Your task to perform on an android device: toggle javascript in the chrome app Image 0: 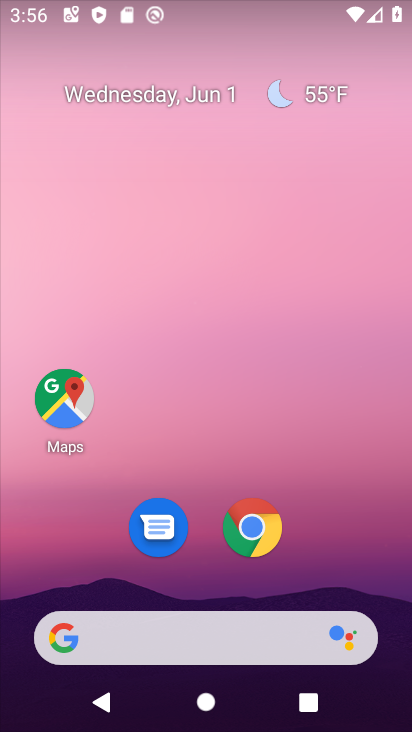
Step 0: click (266, 522)
Your task to perform on an android device: toggle javascript in the chrome app Image 1: 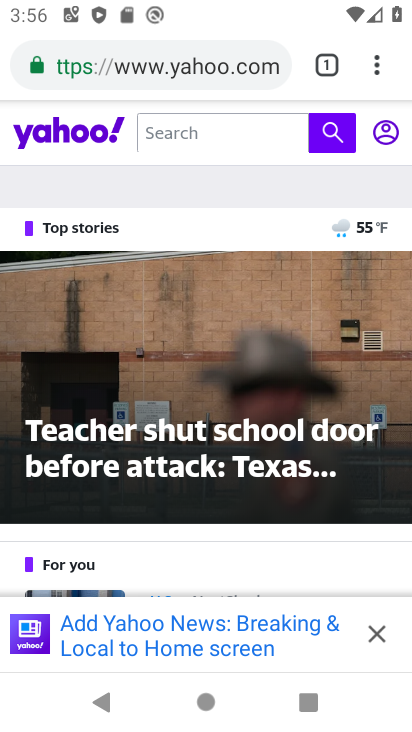
Step 1: drag from (381, 69) to (146, 580)
Your task to perform on an android device: toggle javascript in the chrome app Image 2: 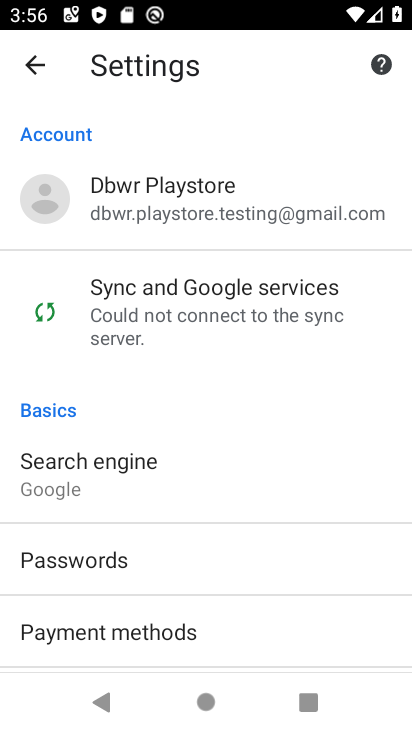
Step 2: drag from (146, 580) to (136, 223)
Your task to perform on an android device: toggle javascript in the chrome app Image 3: 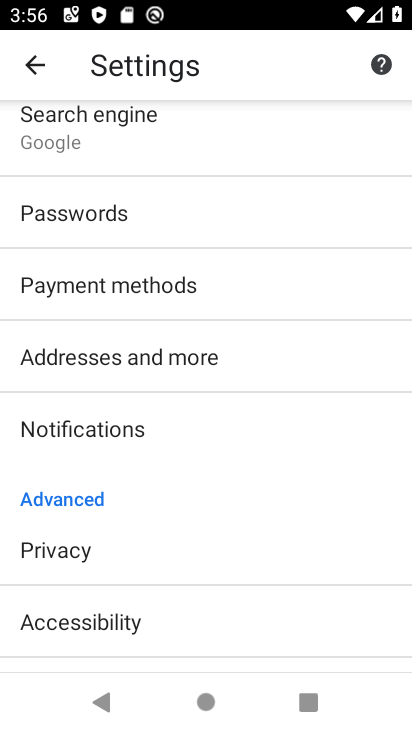
Step 3: drag from (86, 581) to (123, 246)
Your task to perform on an android device: toggle javascript in the chrome app Image 4: 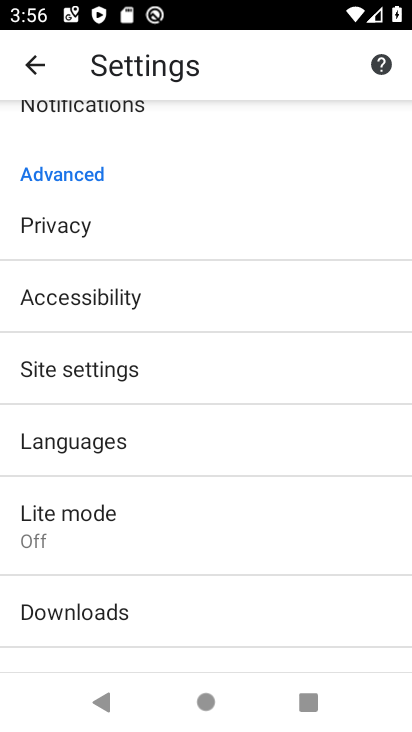
Step 4: click (59, 375)
Your task to perform on an android device: toggle javascript in the chrome app Image 5: 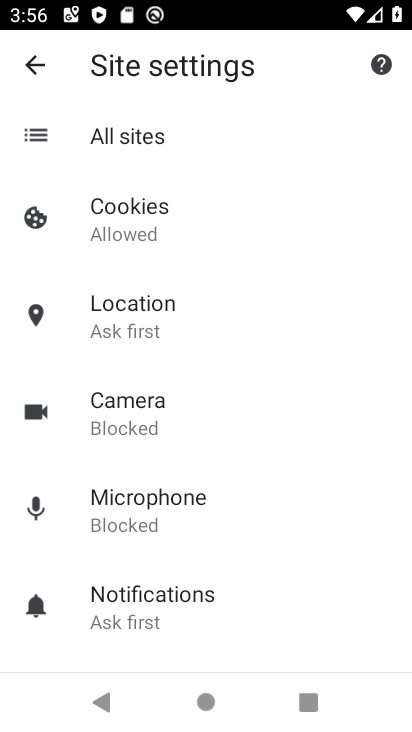
Step 5: drag from (201, 556) to (214, 292)
Your task to perform on an android device: toggle javascript in the chrome app Image 6: 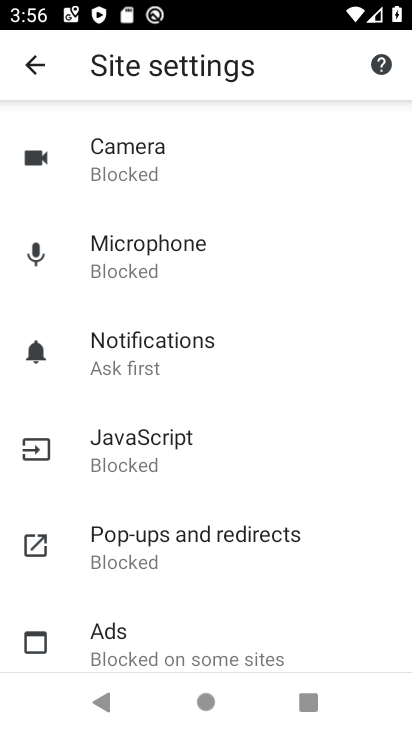
Step 6: click (115, 444)
Your task to perform on an android device: toggle javascript in the chrome app Image 7: 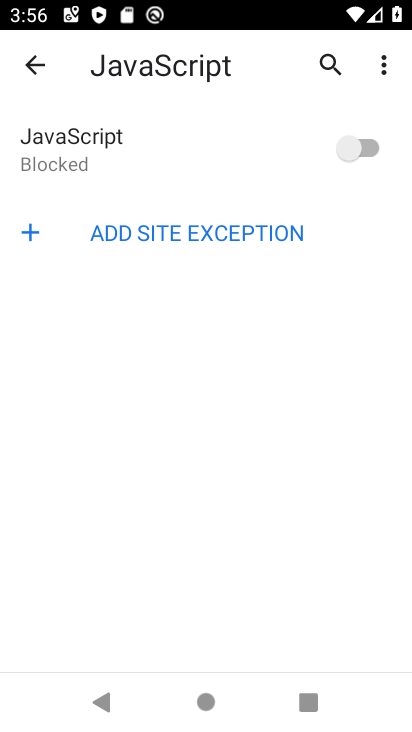
Step 7: click (354, 141)
Your task to perform on an android device: toggle javascript in the chrome app Image 8: 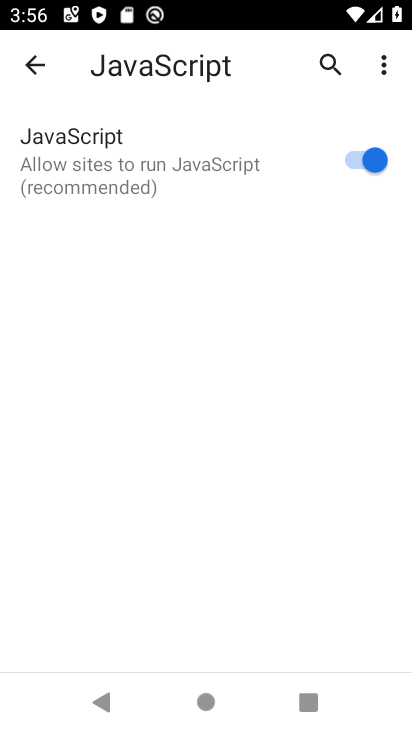
Step 8: task complete